Your task to perform on an android device: turn off javascript in the chrome app Image 0: 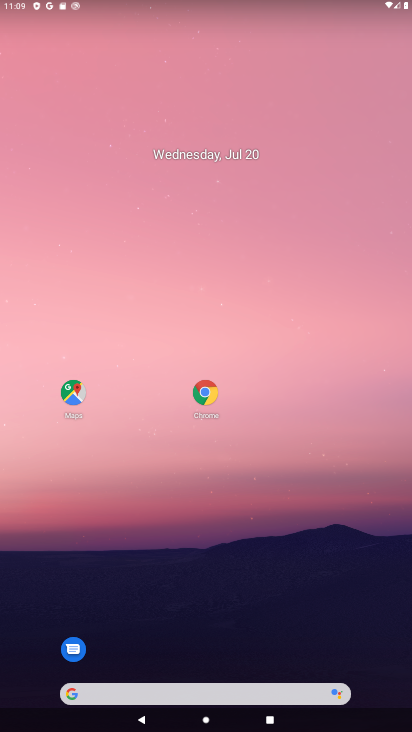
Step 0: click (205, 392)
Your task to perform on an android device: turn off javascript in the chrome app Image 1: 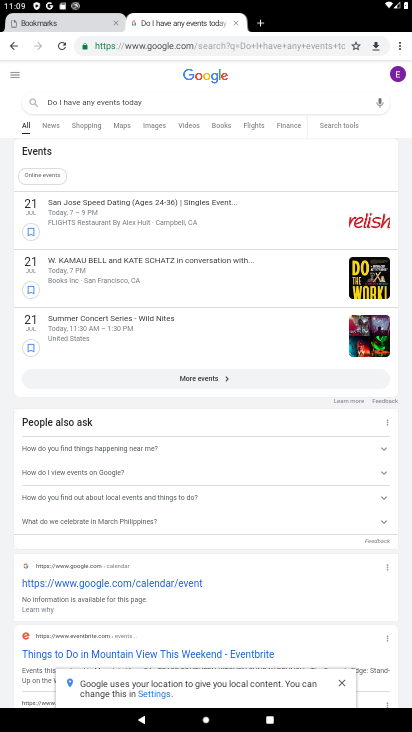
Step 1: click (406, 42)
Your task to perform on an android device: turn off javascript in the chrome app Image 2: 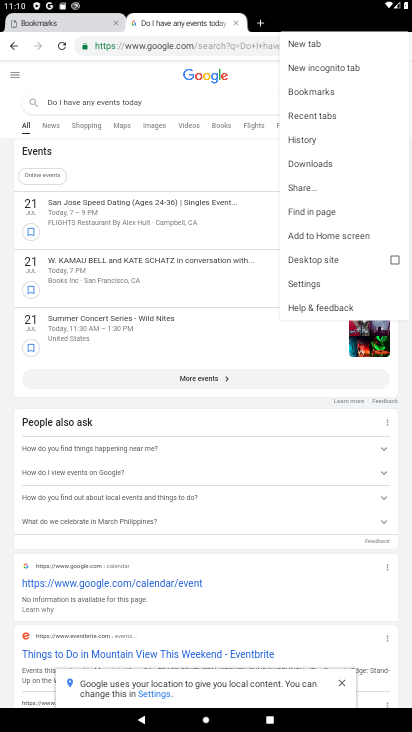
Step 2: click (320, 279)
Your task to perform on an android device: turn off javascript in the chrome app Image 3: 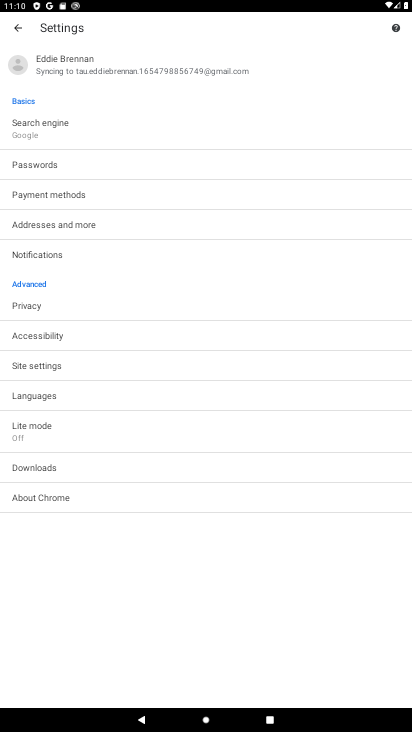
Step 3: click (76, 365)
Your task to perform on an android device: turn off javascript in the chrome app Image 4: 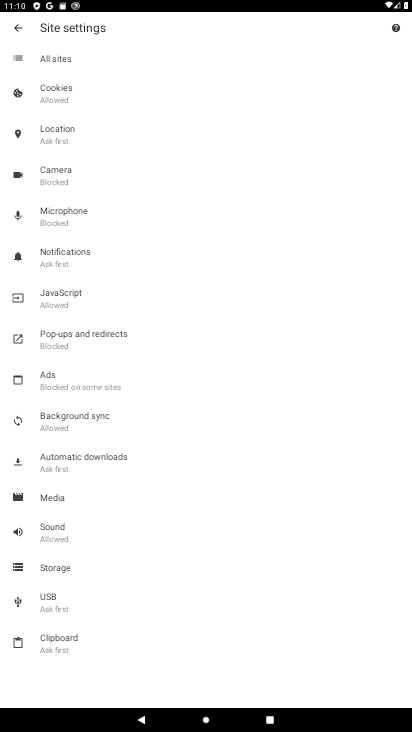
Step 4: click (111, 302)
Your task to perform on an android device: turn off javascript in the chrome app Image 5: 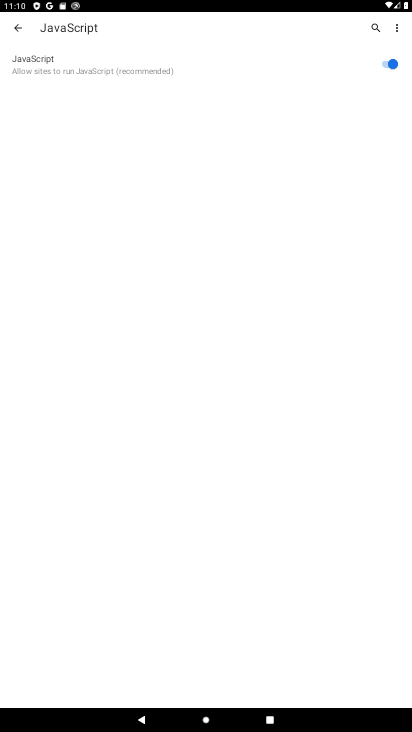
Step 5: click (399, 66)
Your task to perform on an android device: turn off javascript in the chrome app Image 6: 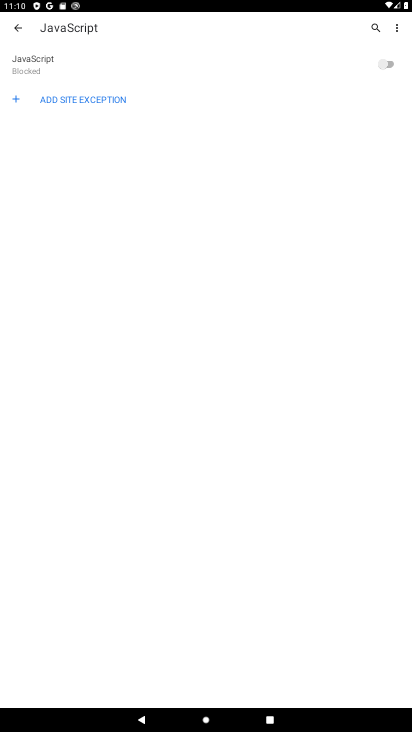
Step 6: task complete